Your task to perform on an android device: turn off location history Image 0: 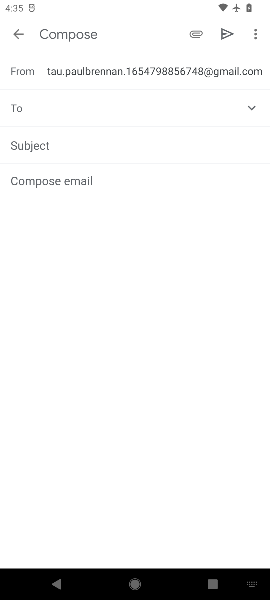
Step 0: press home button
Your task to perform on an android device: turn off location history Image 1: 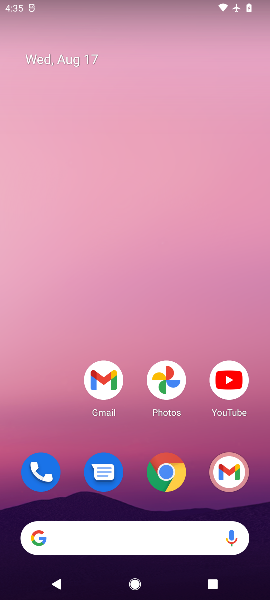
Step 1: drag from (135, 501) to (145, 3)
Your task to perform on an android device: turn off location history Image 2: 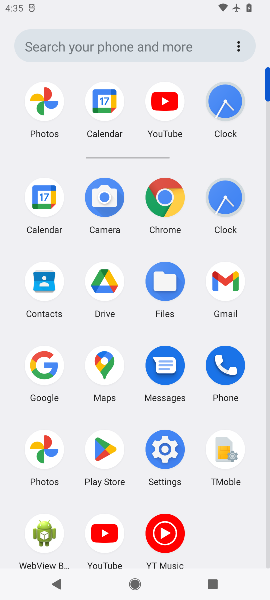
Step 2: click (172, 457)
Your task to perform on an android device: turn off location history Image 3: 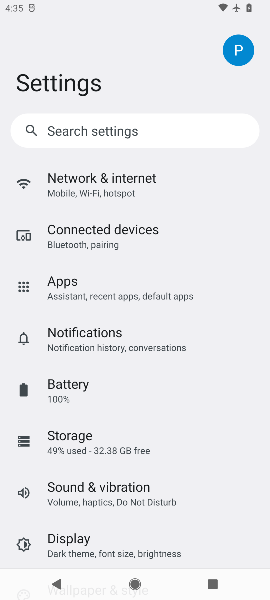
Step 3: drag from (105, 501) to (130, 209)
Your task to perform on an android device: turn off location history Image 4: 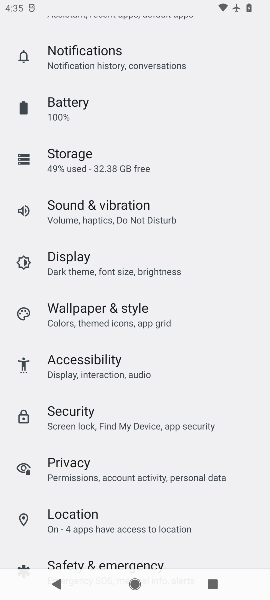
Step 4: click (101, 514)
Your task to perform on an android device: turn off location history Image 5: 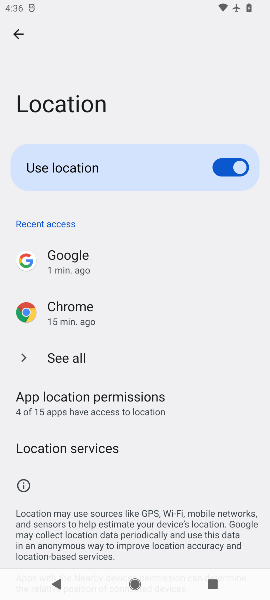
Step 5: click (78, 449)
Your task to perform on an android device: turn off location history Image 6: 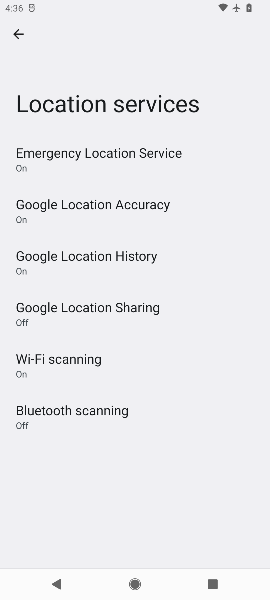
Step 6: click (138, 260)
Your task to perform on an android device: turn off location history Image 7: 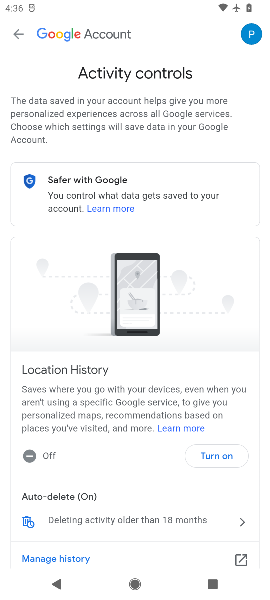
Step 7: task complete